Your task to perform on an android device: Open Yahoo.com Image 0: 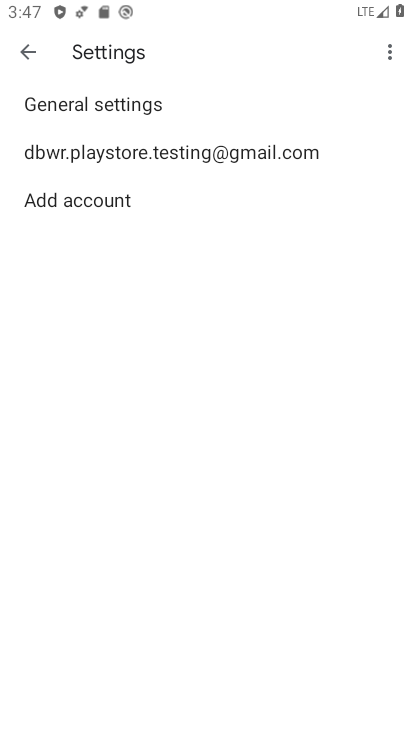
Step 0: press home button
Your task to perform on an android device: Open Yahoo.com Image 1: 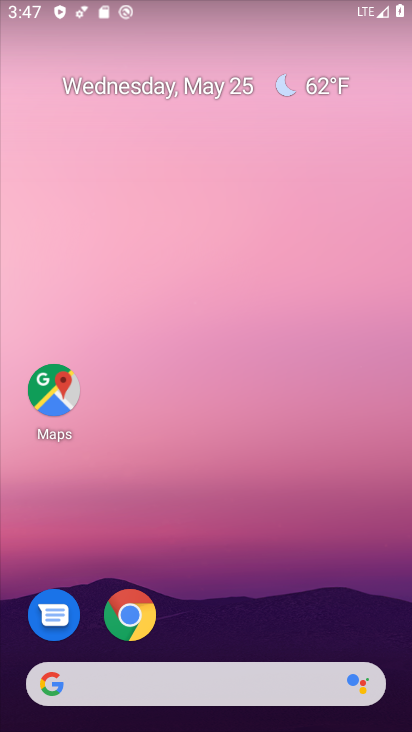
Step 1: click (144, 616)
Your task to perform on an android device: Open Yahoo.com Image 2: 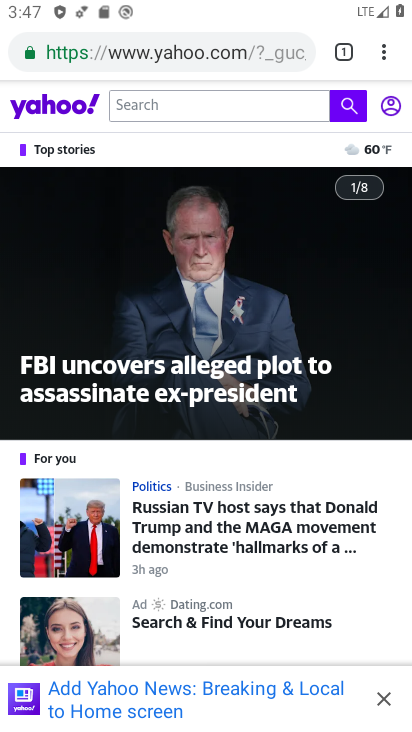
Step 2: task complete